Your task to perform on an android device: turn on notifications settings in the gmail app Image 0: 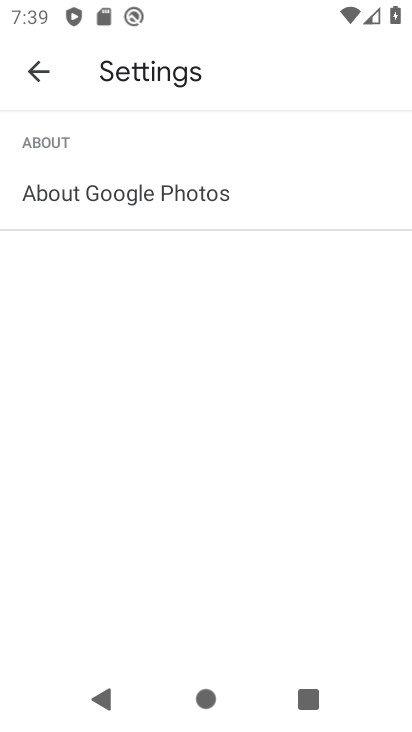
Step 0: press home button
Your task to perform on an android device: turn on notifications settings in the gmail app Image 1: 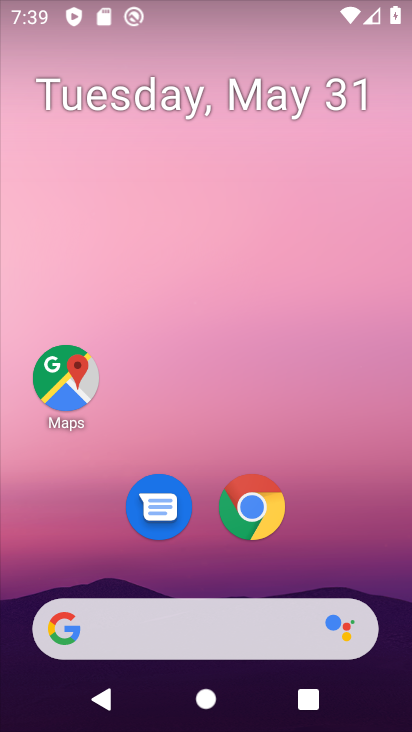
Step 1: drag from (351, 568) to (343, 46)
Your task to perform on an android device: turn on notifications settings in the gmail app Image 2: 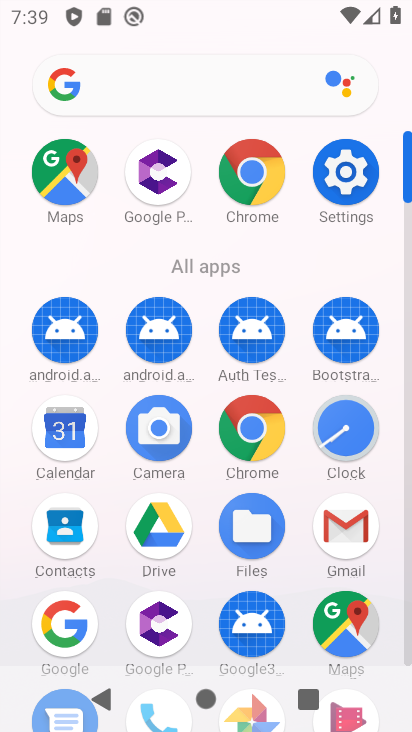
Step 2: click (331, 513)
Your task to perform on an android device: turn on notifications settings in the gmail app Image 3: 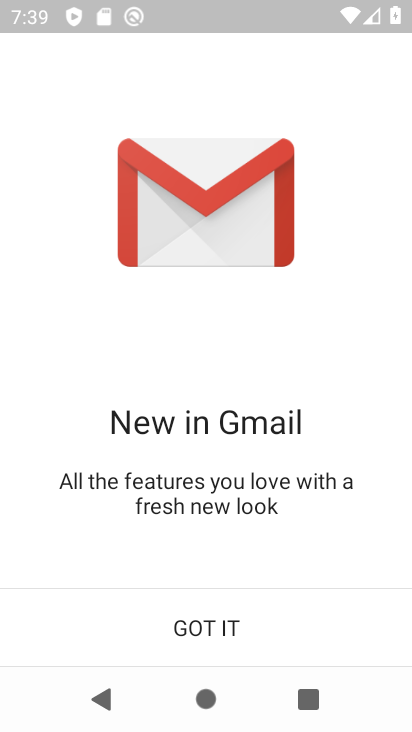
Step 3: click (200, 619)
Your task to perform on an android device: turn on notifications settings in the gmail app Image 4: 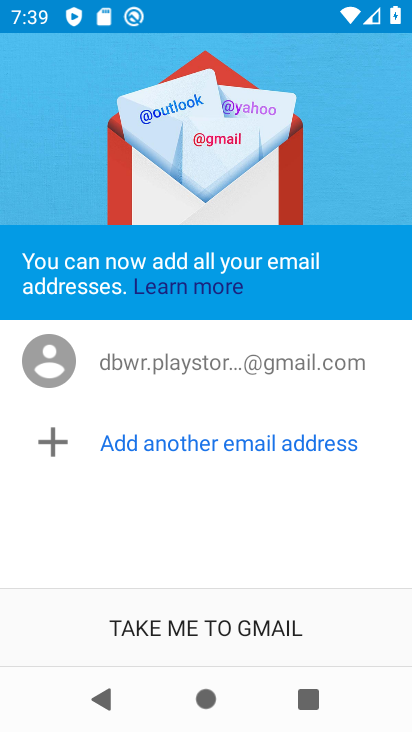
Step 4: click (194, 628)
Your task to perform on an android device: turn on notifications settings in the gmail app Image 5: 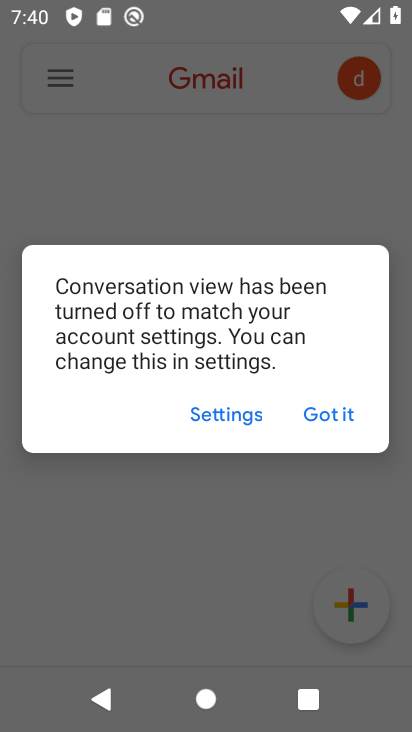
Step 5: click (326, 419)
Your task to perform on an android device: turn on notifications settings in the gmail app Image 6: 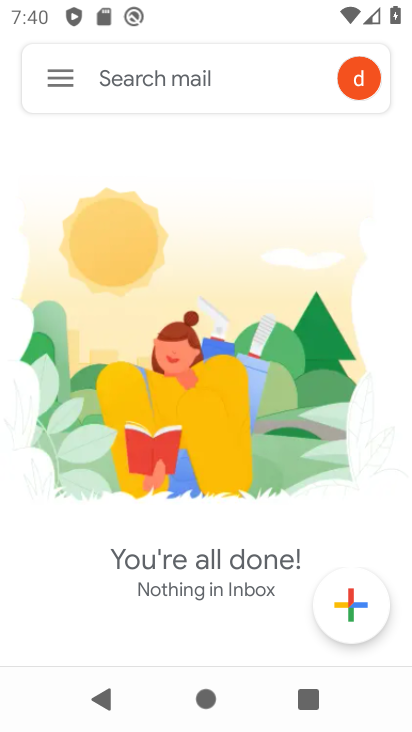
Step 6: click (53, 83)
Your task to perform on an android device: turn on notifications settings in the gmail app Image 7: 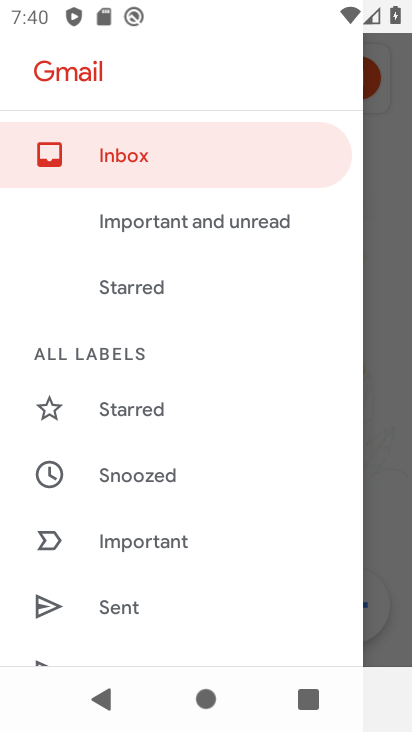
Step 7: drag from (204, 510) to (206, 127)
Your task to perform on an android device: turn on notifications settings in the gmail app Image 8: 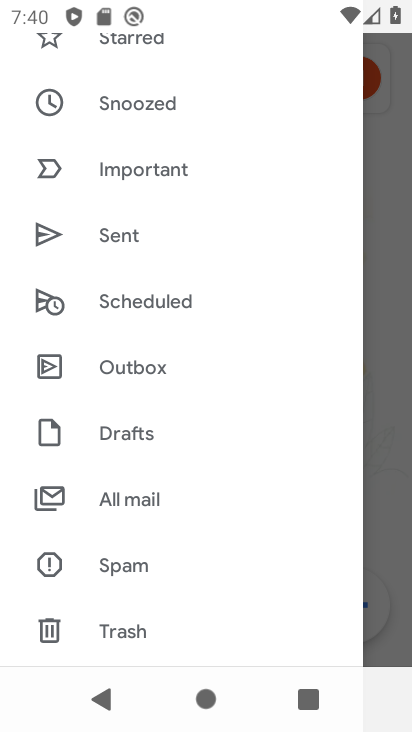
Step 8: drag from (170, 544) to (184, 104)
Your task to perform on an android device: turn on notifications settings in the gmail app Image 9: 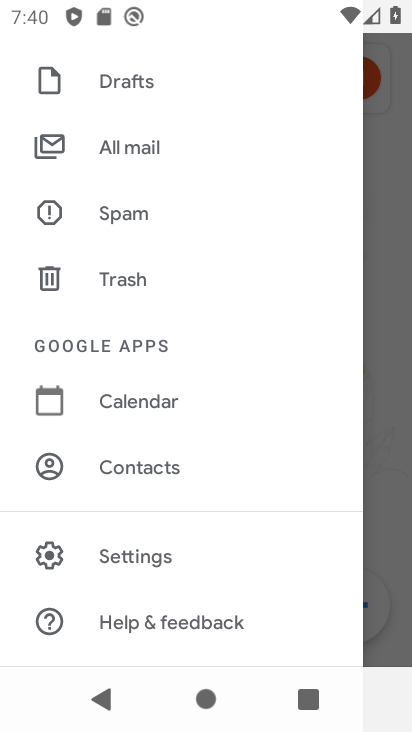
Step 9: click (148, 553)
Your task to perform on an android device: turn on notifications settings in the gmail app Image 10: 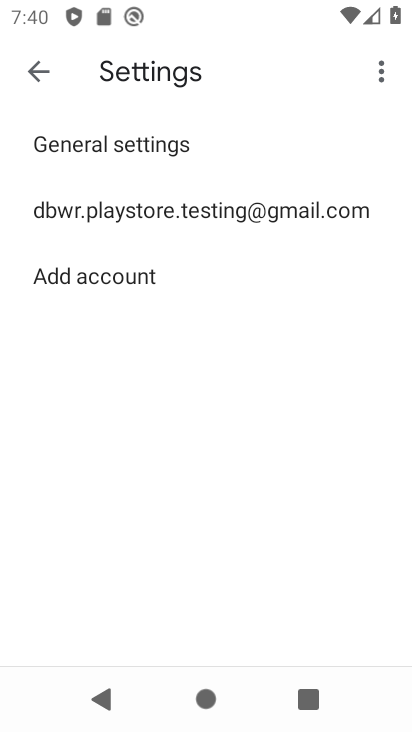
Step 10: click (124, 143)
Your task to perform on an android device: turn on notifications settings in the gmail app Image 11: 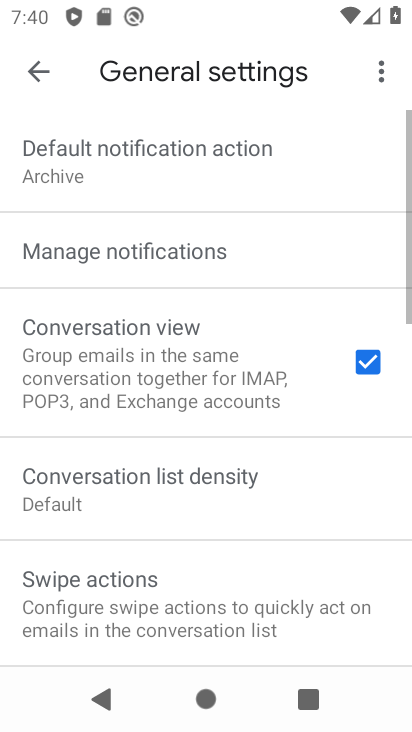
Step 11: click (107, 254)
Your task to perform on an android device: turn on notifications settings in the gmail app Image 12: 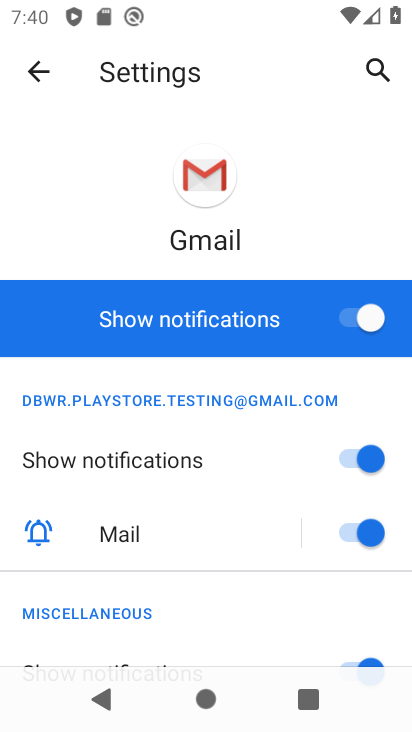
Step 12: task complete